Your task to perform on an android device: open chrome privacy settings Image 0: 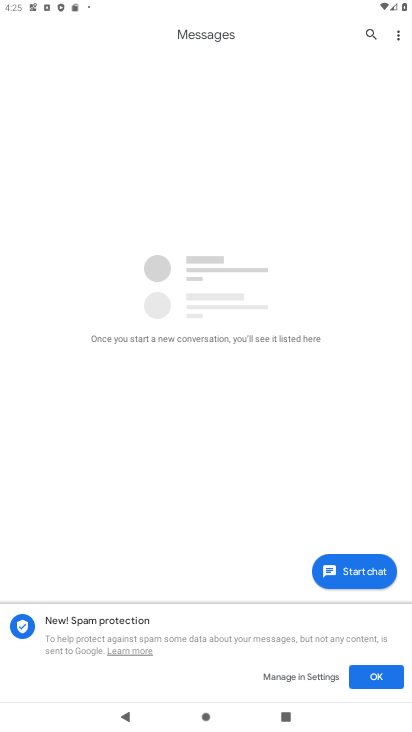
Step 0: press home button
Your task to perform on an android device: open chrome privacy settings Image 1: 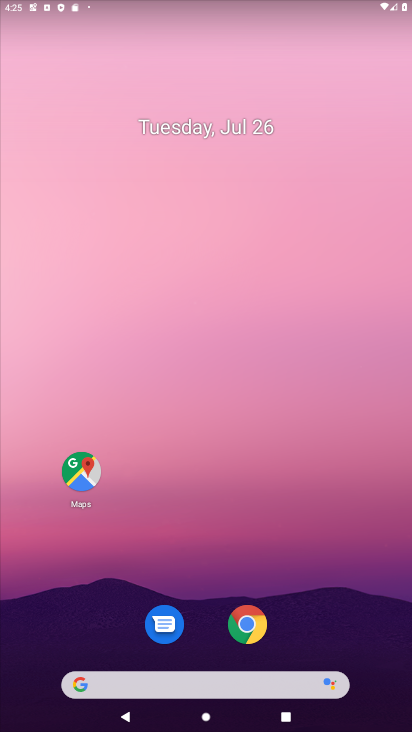
Step 1: drag from (315, 677) to (261, 12)
Your task to perform on an android device: open chrome privacy settings Image 2: 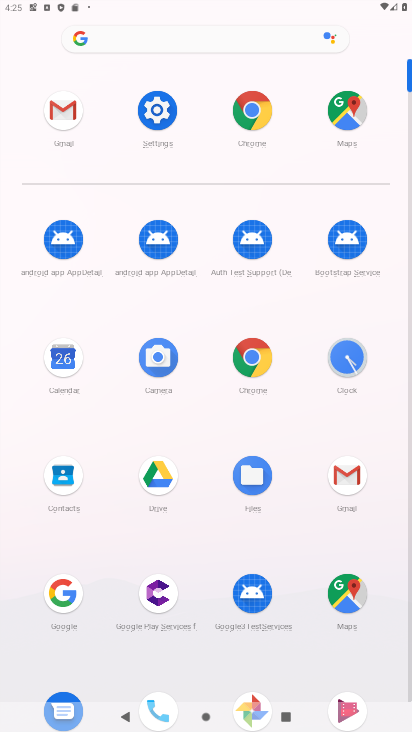
Step 2: click (256, 358)
Your task to perform on an android device: open chrome privacy settings Image 3: 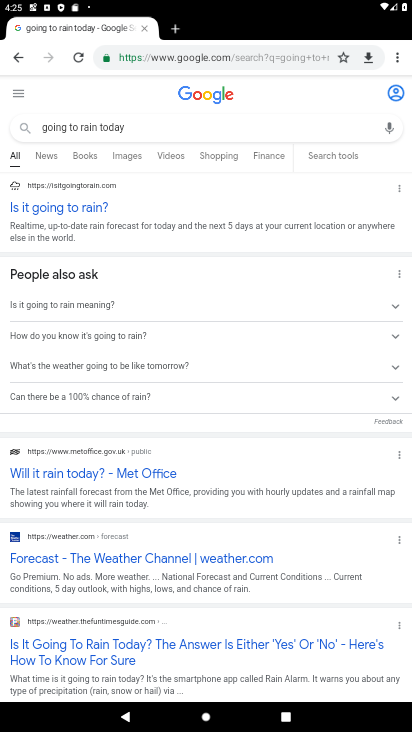
Step 3: click (398, 52)
Your task to perform on an android device: open chrome privacy settings Image 4: 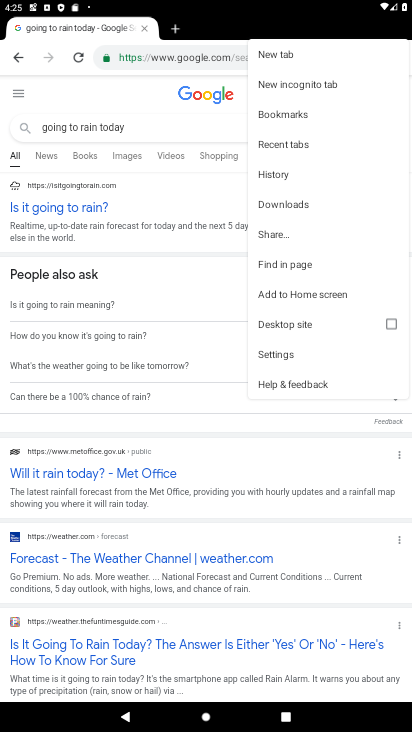
Step 4: click (300, 352)
Your task to perform on an android device: open chrome privacy settings Image 5: 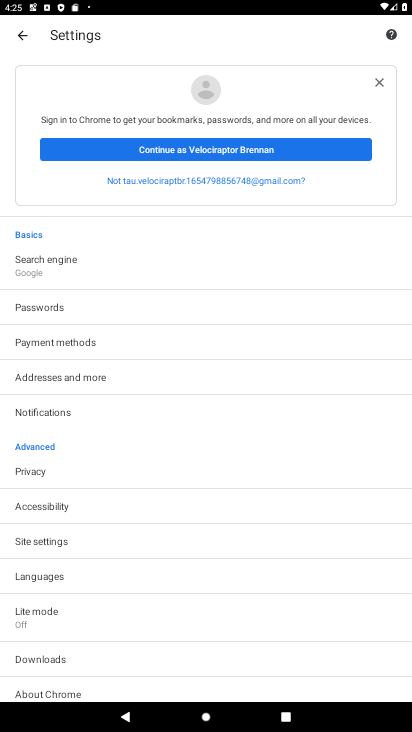
Step 5: click (62, 545)
Your task to perform on an android device: open chrome privacy settings Image 6: 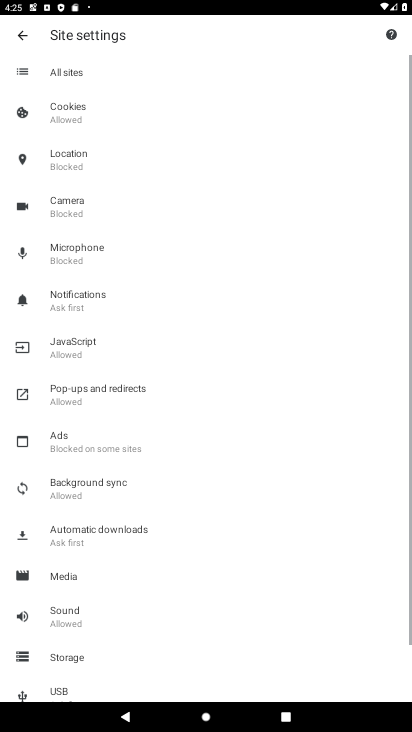
Step 6: press back button
Your task to perform on an android device: open chrome privacy settings Image 7: 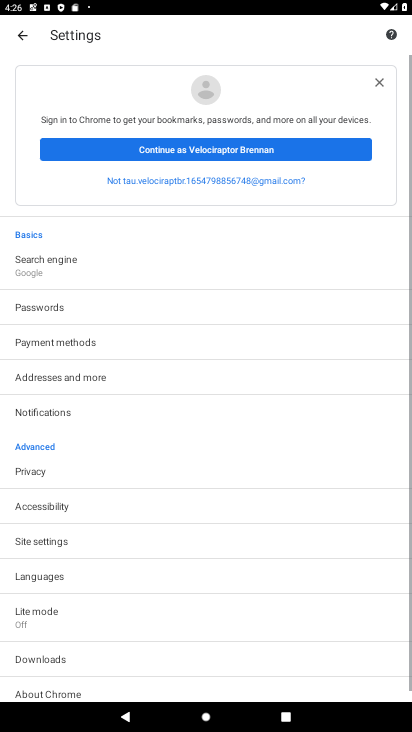
Step 7: click (66, 478)
Your task to perform on an android device: open chrome privacy settings Image 8: 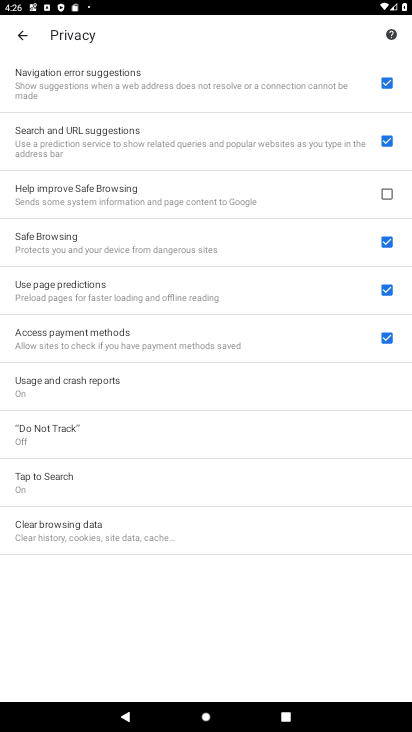
Step 8: task complete